Your task to perform on an android device: Search for seafood restaurants on Google Maps Image 0: 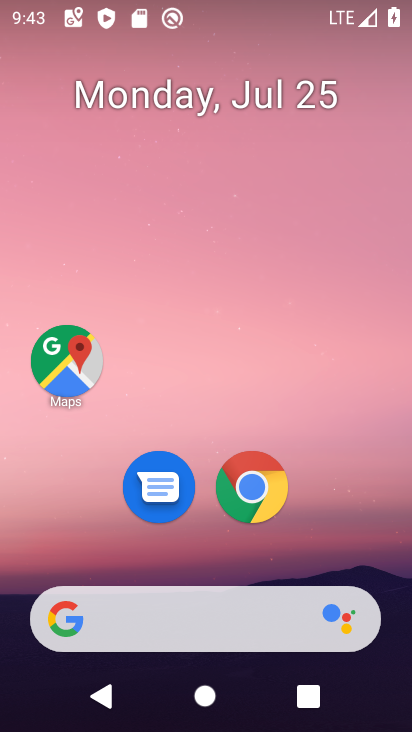
Step 0: click (55, 377)
Your task to perform on an android device: Search for seafood restaurants on Google Maps Image 1: 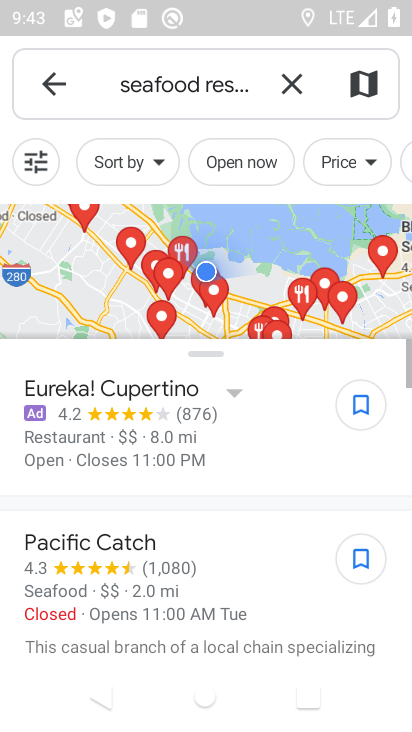
Step 1: task complete